Your task to perform on an android device: turn off javascript in the chrome app Image 0: 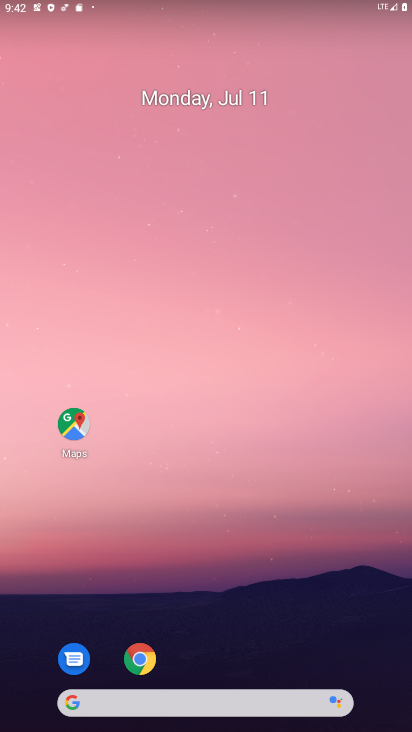
Step 0: drag from (203, 731) to (203, 207)
Your task to perform on an android device: turn off javascript in the chrome app Image 1: 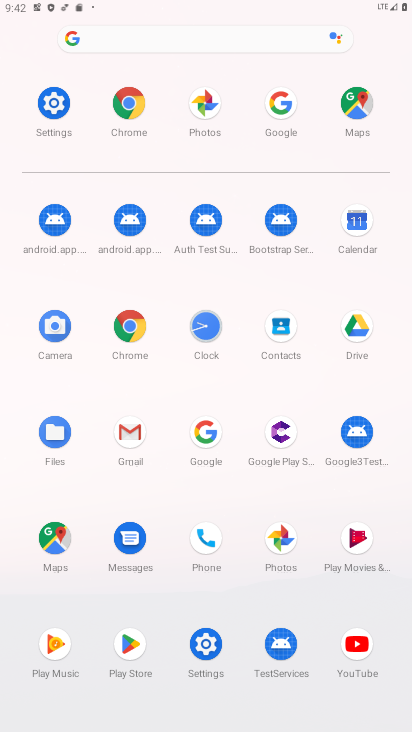
Step 1: click (126, 98)
Your task to perform on an android device: turn off javascript in the chrome app Image 2: 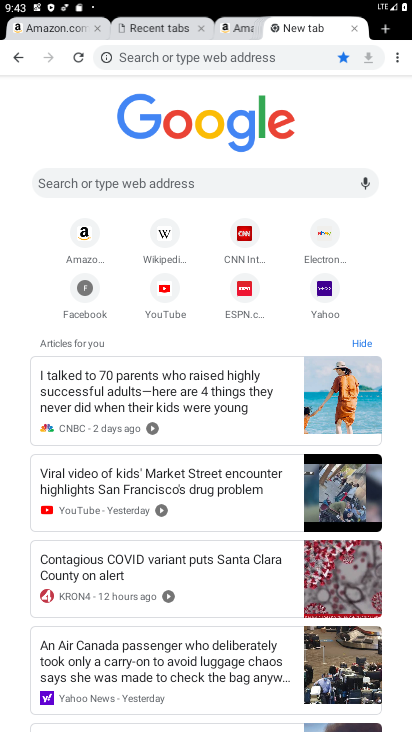
Step 2: click (398, 58)
Your task to perform on an android device: turn off javascript in the chrome app Image 3: 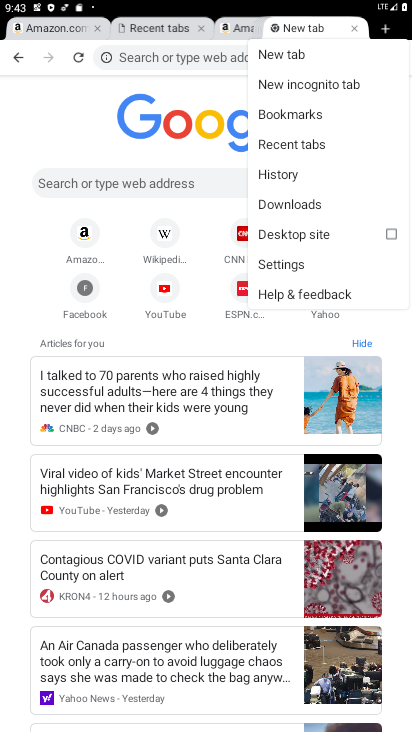
Step 3: click (273, 260)
Your task to perform on an android device: turn off javascript in the chrome app Image 4: 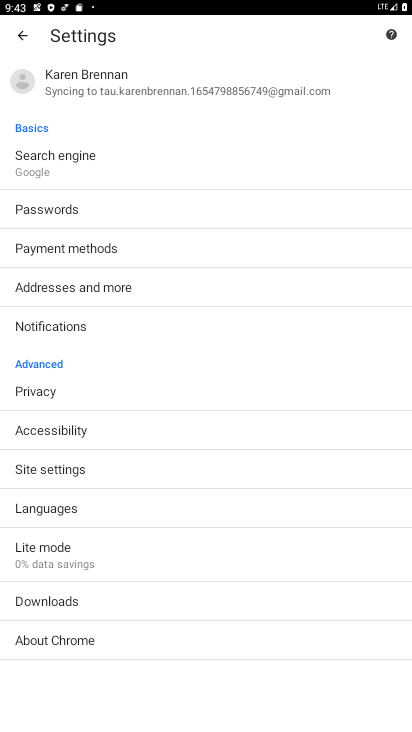
Step 4: click (66, 465)
Your task to perform on an android device: turn off javascript in the chrome app Image 5: 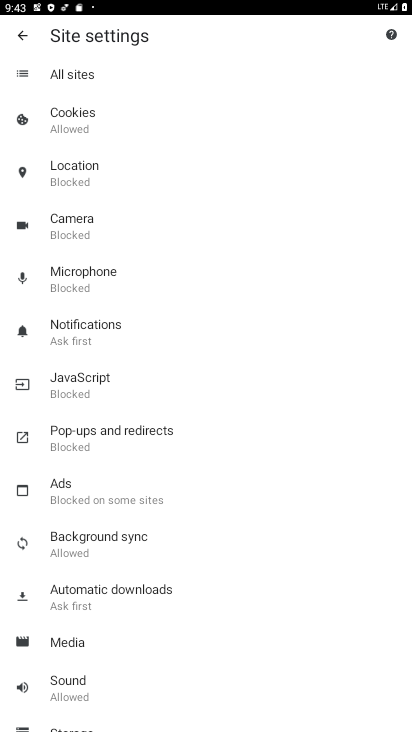
Step 5: click (80, 377)
Your task to perform on an android device: turn off javascript in the chrome app Image 6: 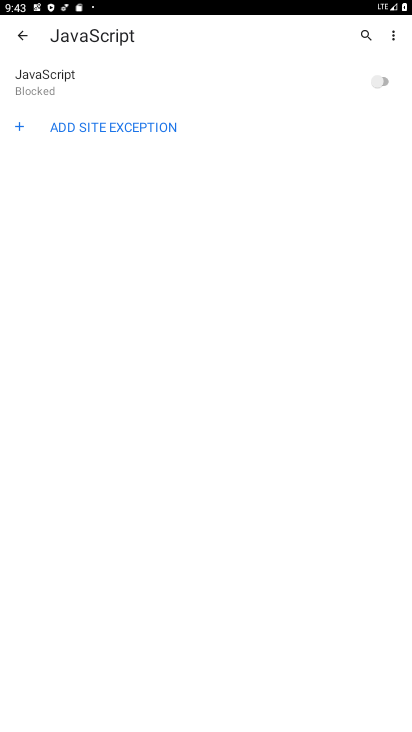
Step 6: task complete